Your task to perform on an android device: remove spam from my inbox in the gmail app Image 0: 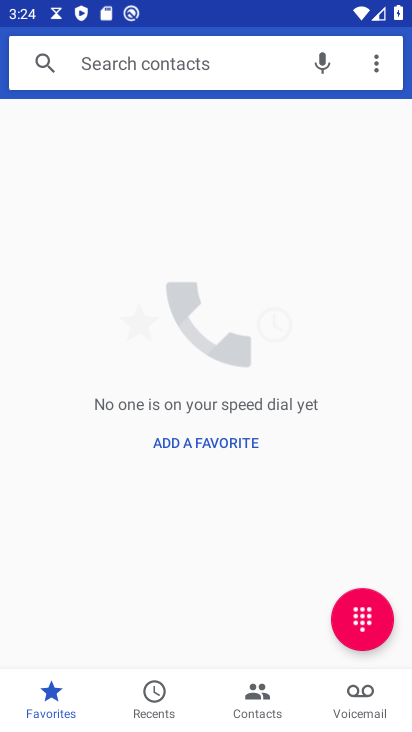
Step 0: press home button
Your task to perform on an android device: remove spam from my inbox in the gmail app Image 1: 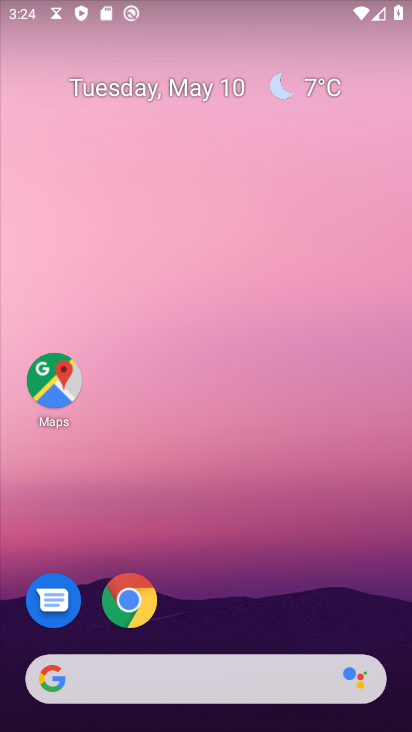
Step 1: drag from (310, 509) to (39, 8)
Your task to perform on an android device: remove spam from my inbox in the gmail app Image 2: 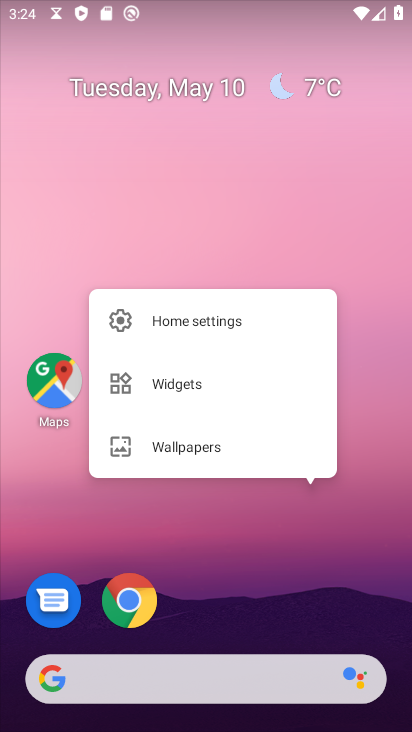
Step 2: click (359, 154)
Your task to perform on an android device: remove spam from my inbox in the gmail app Image 3: 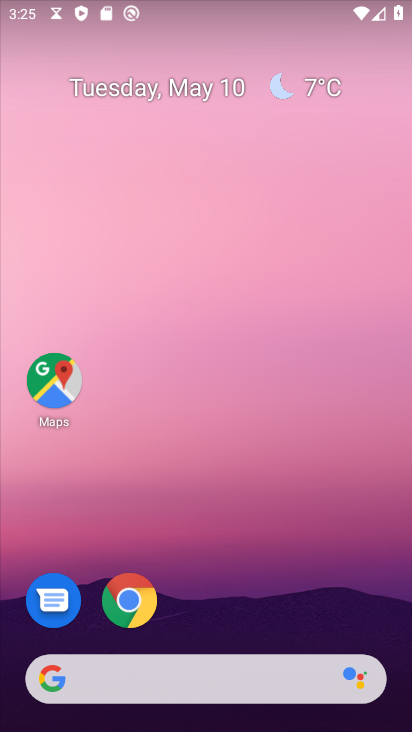
Step 3: drag from (259, 484) to (197, 21)
Your task to perform on an android device: remove spam from my inbox in the gmail app Image 4: 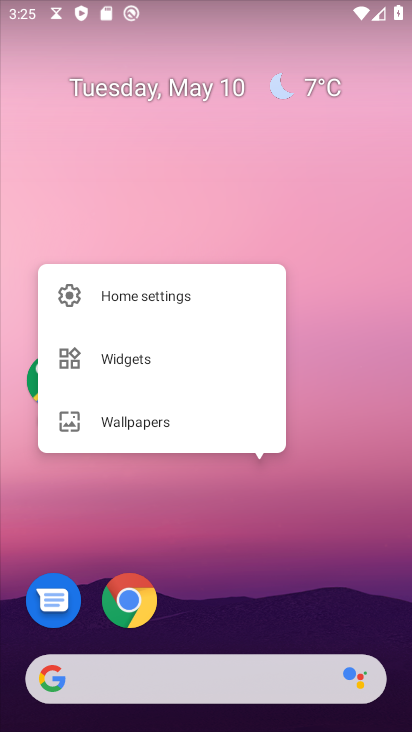
Step 4: click (324, 240)
Your task to perform on an android device: remove spam from my inbox in the gmail app Image 5: 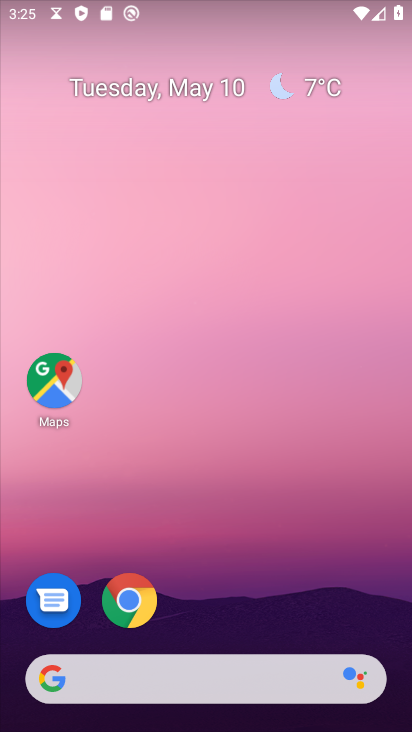
Step 5: drag from (284, 599) to (244, 161)
Your task to perform on an android device: remove spam from my inbox in the gmail app Image 6: 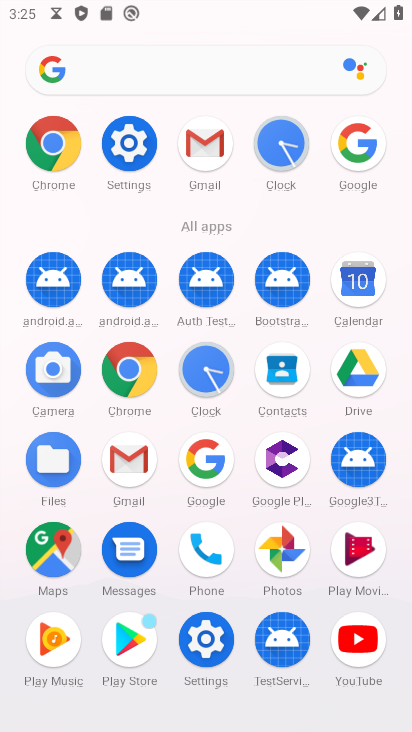
Step 6: click (217, 139)
Your task to perform on an android device: remove spam from my inbox in the gmail app Image 7: 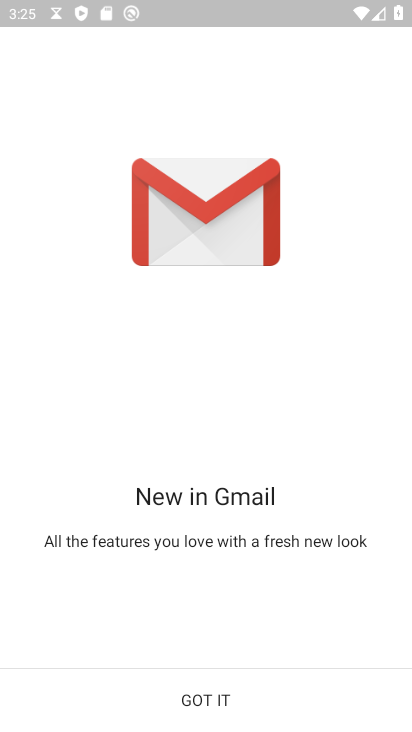
Step 7: task complete